Your task to perform on an android device: open app "Google Duo" (install if not already installed) Image 0: 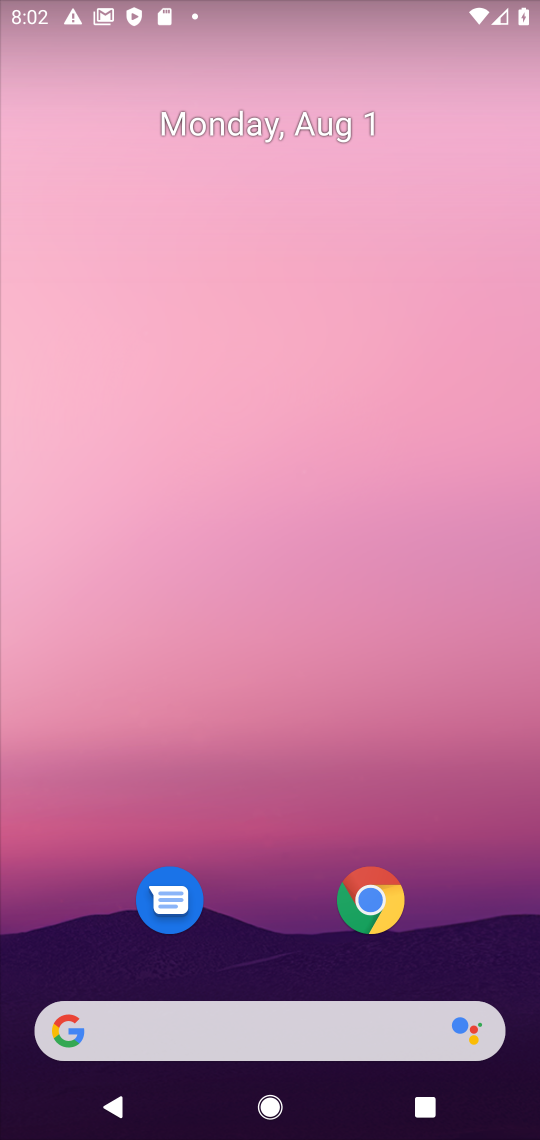
Step 0: drag from (229, 978) to (113, 269)
Your task to perform on an android device: open app "Google Duo" (install if not already installed) Image 1: 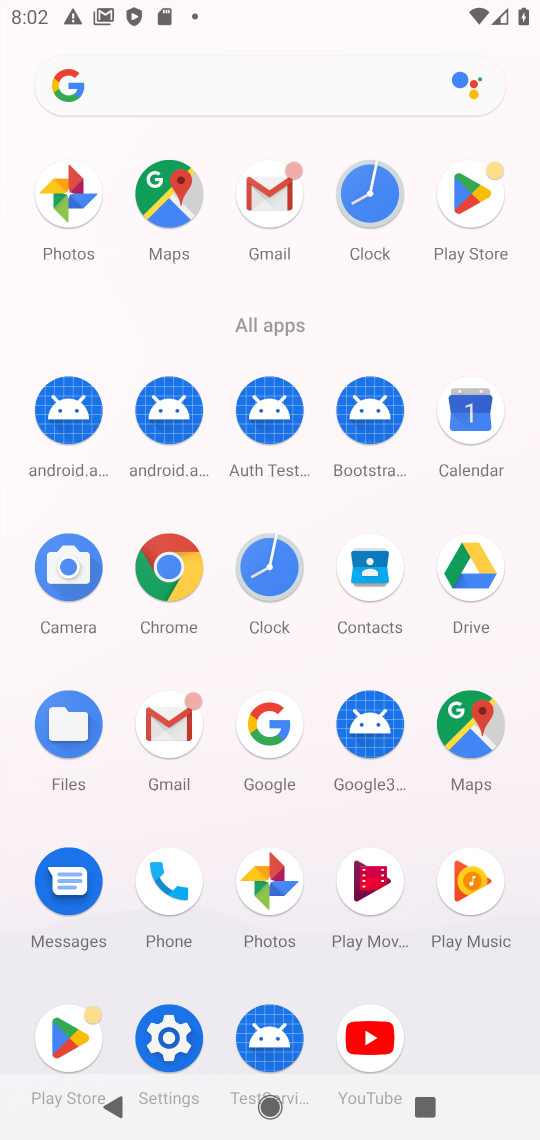
Step 1: click (30, 1042)
Your task to perform on an android device: open app "Google Duo" (install if not already installed) Image 2: 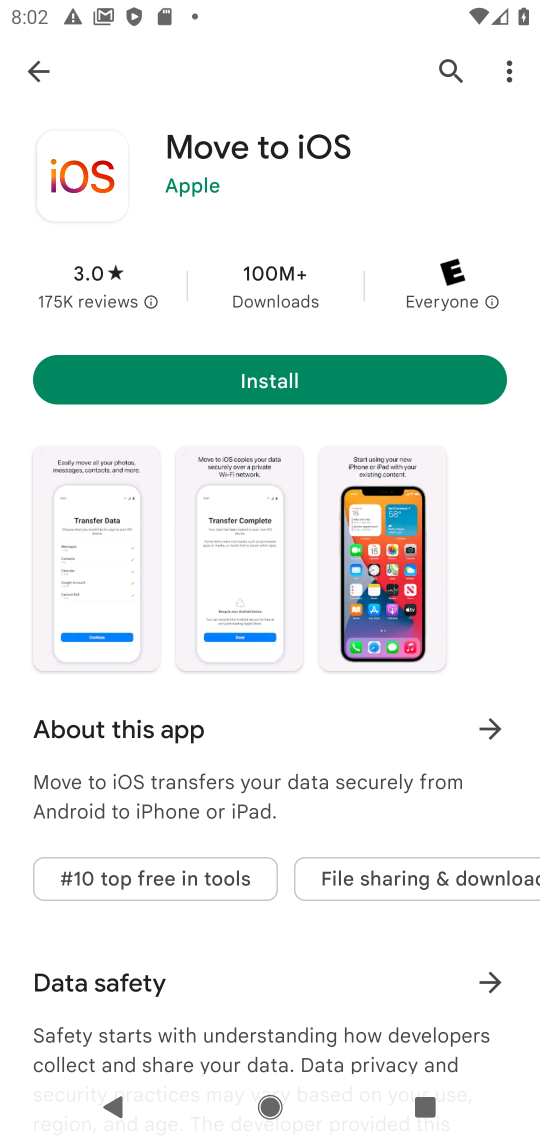
Step 2: click (37, 66)
Your task to perform on an android device: open app "Google Duo" (install if not already installed) Image 3: 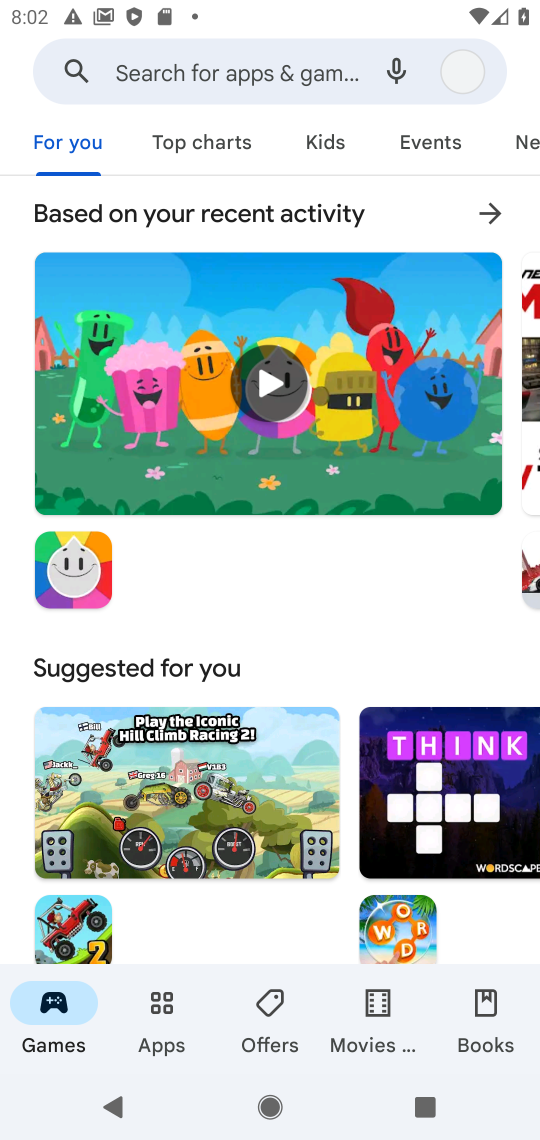
Step 3: click (220, 66)
Your task to perform on an android device: open app "Google Duo" (install if not already installed) Image 4: 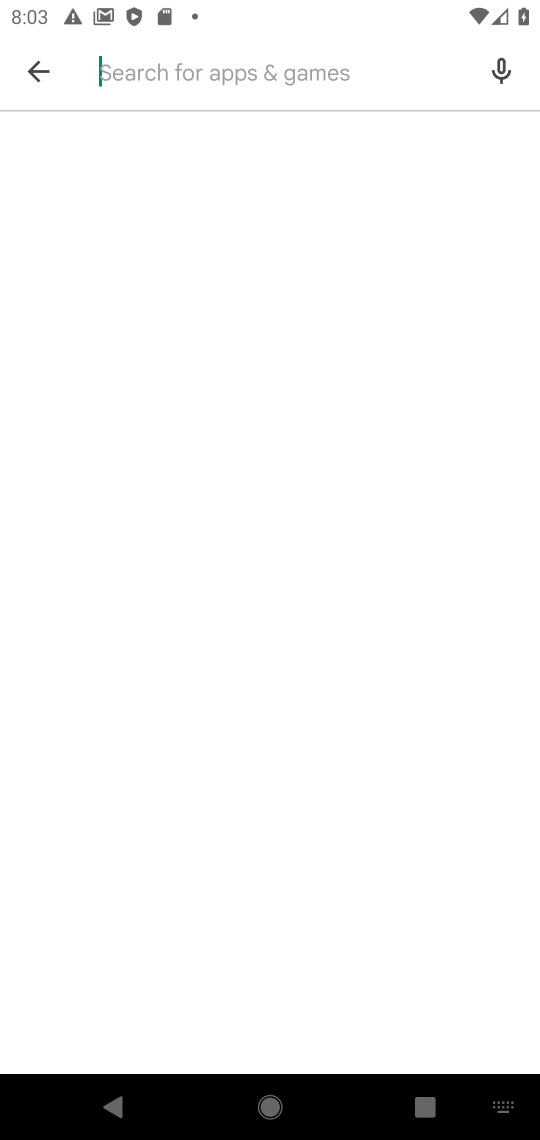
Step 4: click (141, 1136)
Your task to perform on an android device: open app "Google Duo" (install if not already installed) Image 5: 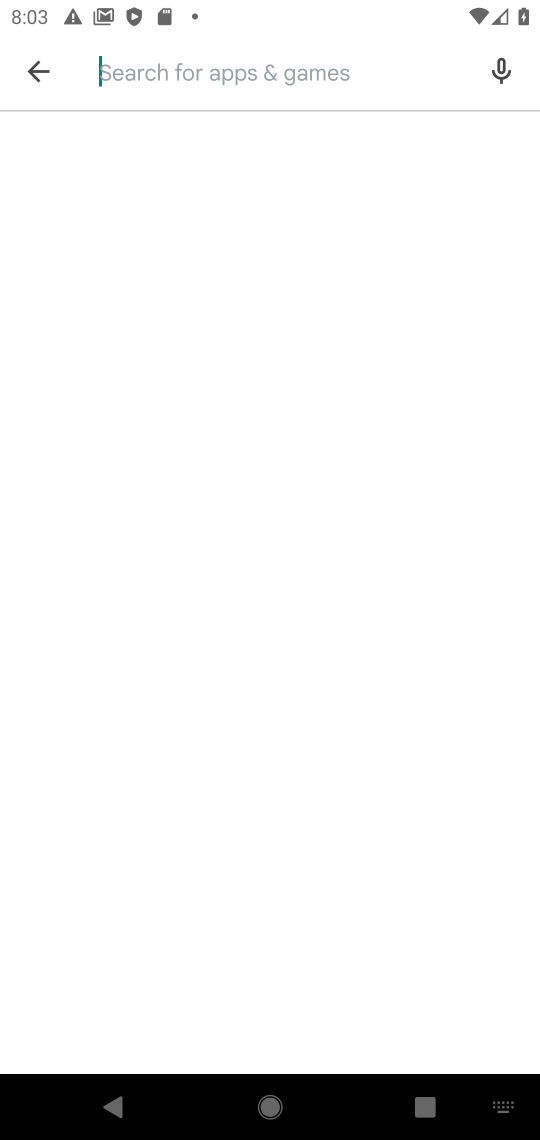
Step 5: type "Google Duo"
Your task to perform on an android device: open app "Google Duo" (install if not already installed) Image 6: 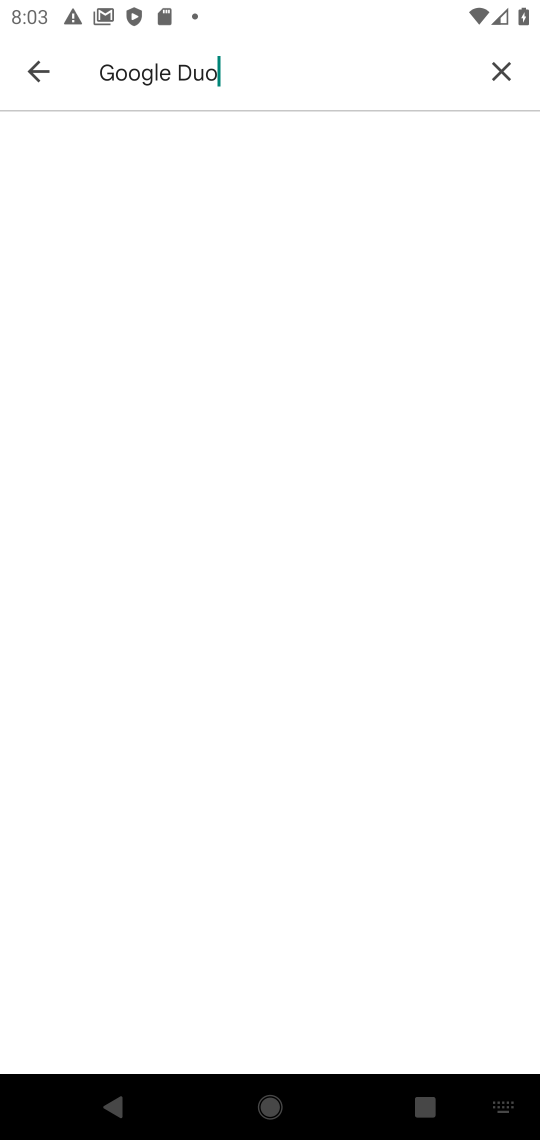
Step 6: drag from (141, 1136) to (446, 720)
Your task to perform on an android device: open app "Google Duo" (install if not already installed) Image 7: 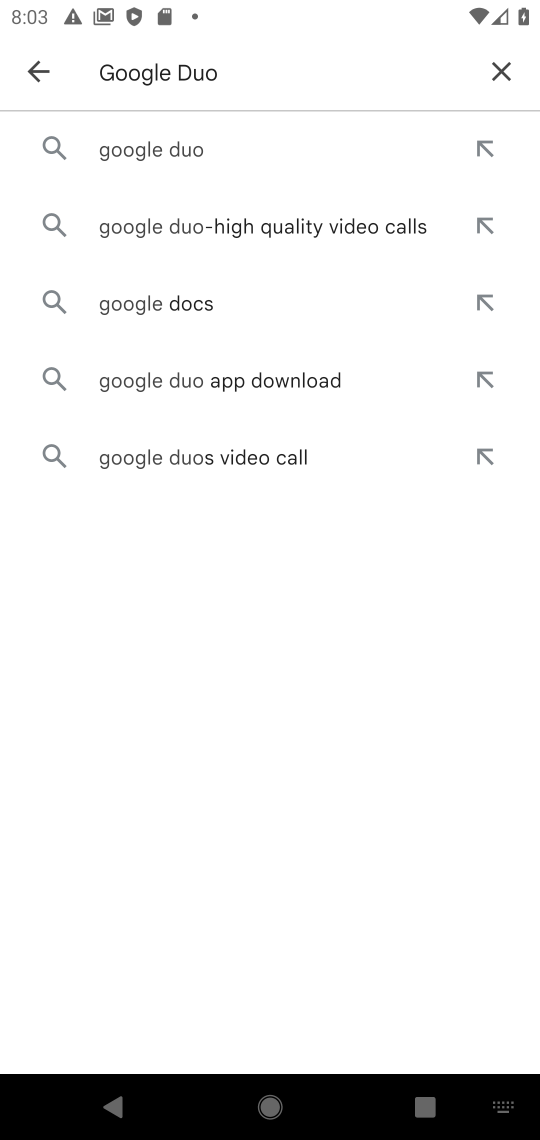
Step 7: click (116, 146)
Your task to perform on an android device: open app "Google Duo" (install if not already installed) Image 8: 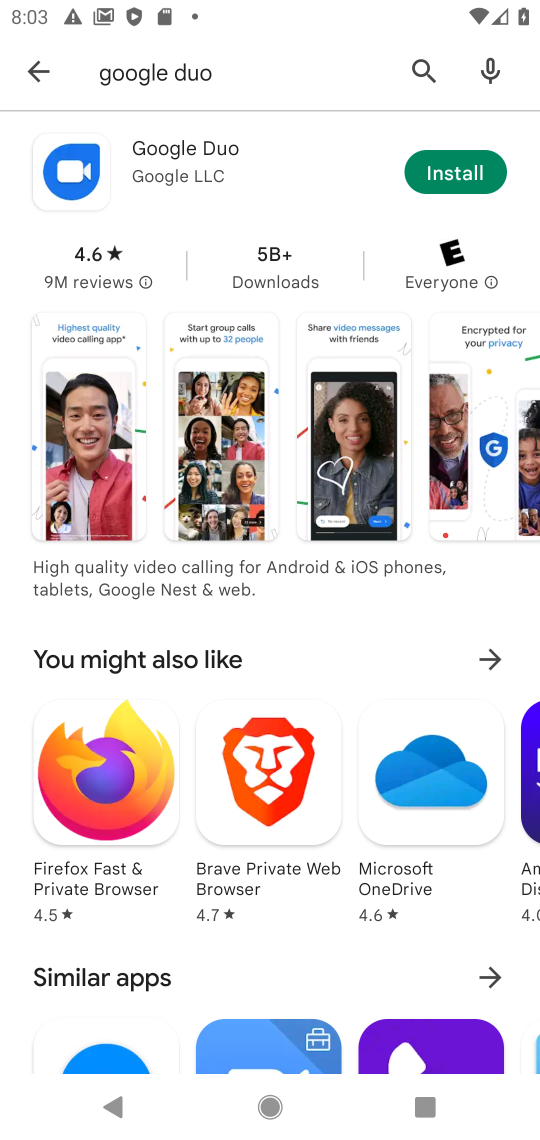
Step 8: click (449, 162)
Your task to perform on an android device: open app "Google Duo" (install if not already installed) Image 9: 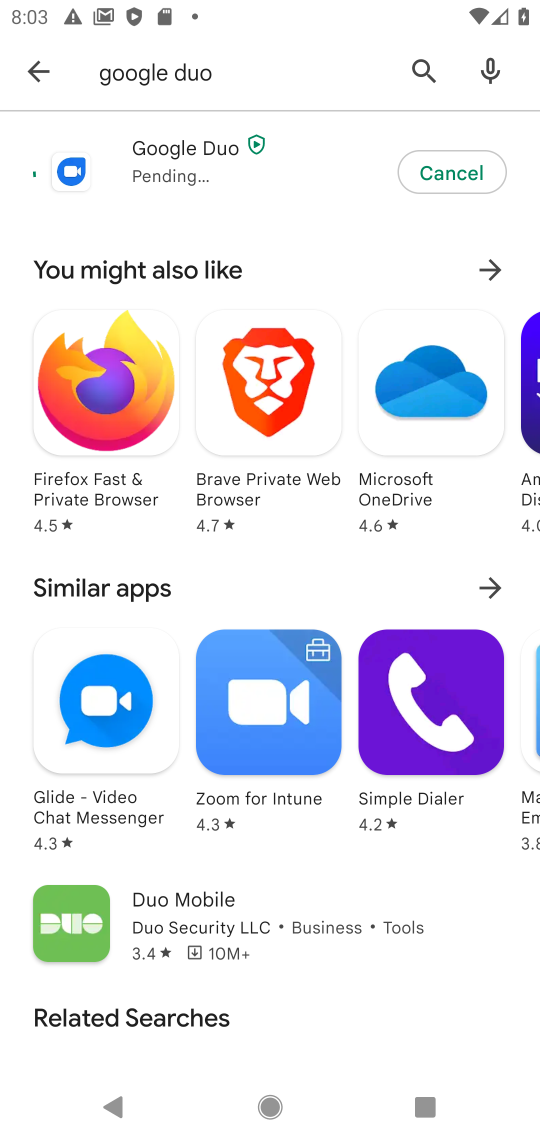
Step 9: click (58, 156)
Your task to perform on an android device: open app "Google Duo" (install if not already installed) Image 10: 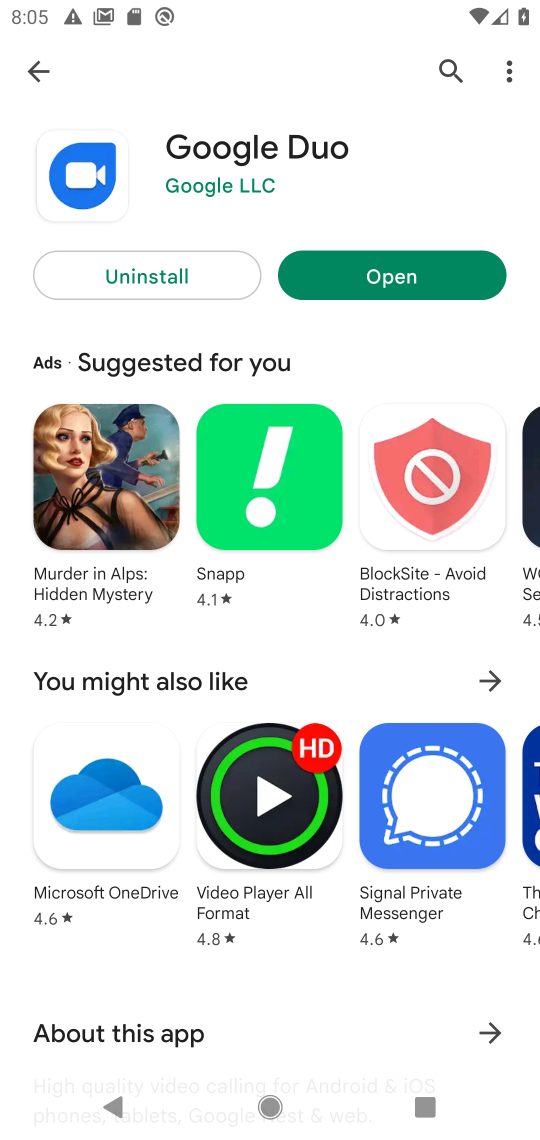
Step 10: click (422, 290)
Your task to perform on an android device: open app "Google Duo" (install if not already installed) Image 11: 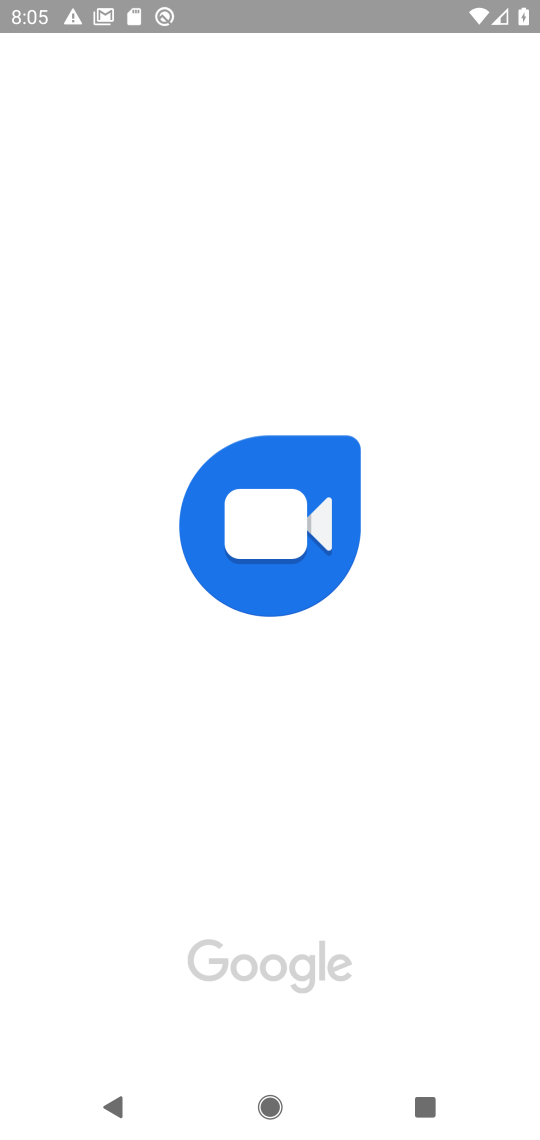
Step 11: task complete